Your task to perform on an android device: Open Maps and search for coffee Image 0: 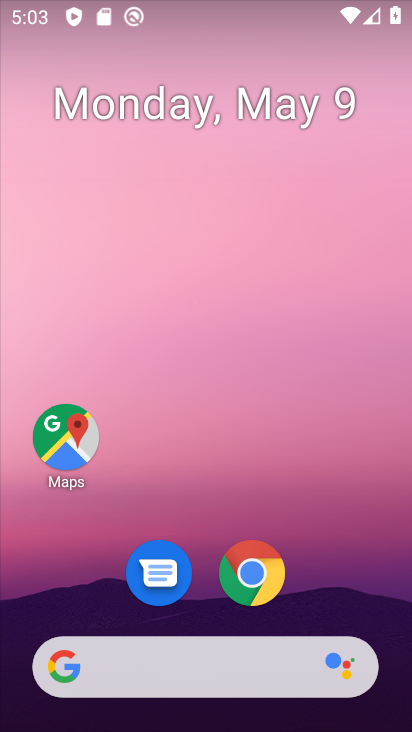
Step 0: drag from (351, 606) to (325, 200)
Your task to perform on an android device: Open Maps and search for coffee Image 1: 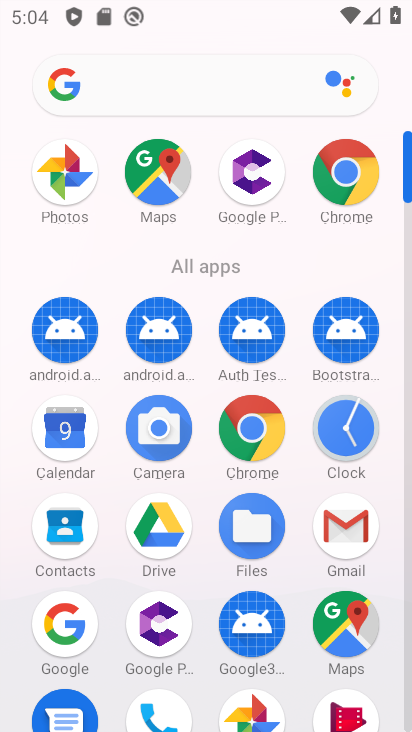
Step 1: drag from (293, 646) to (298, 191)
Your task to perform on an android device: Open Maps and search for coffee Image 2: 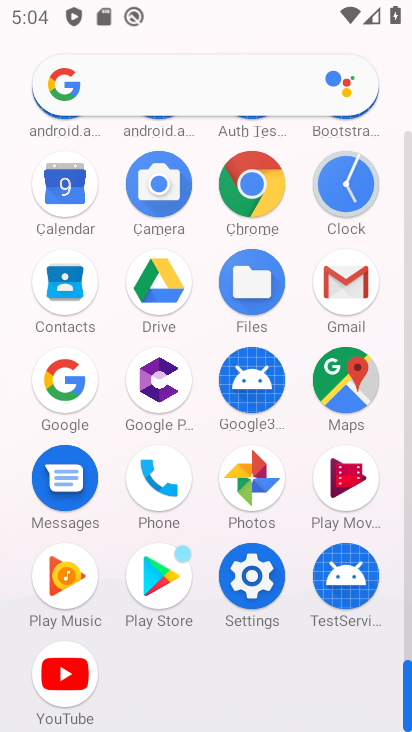
Step 2: drag from (308, 270) to (262, 579)
Your task to perform on an android device: Open Maps and search for coffee Image 3: 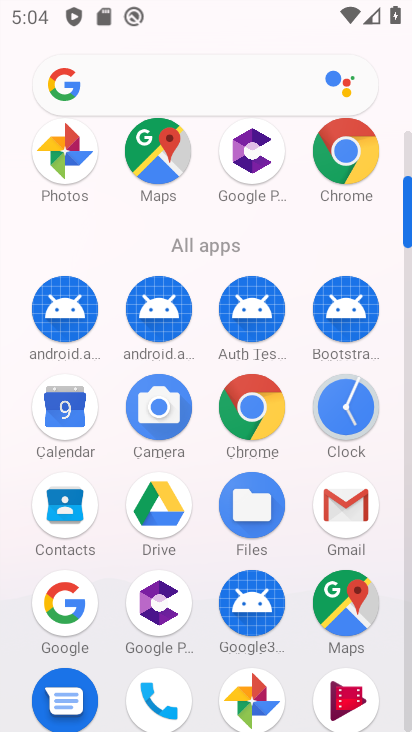
Step 3: click (163, 194)
Your task to perform on an android device: Open Maps and search for coffee Image 4: 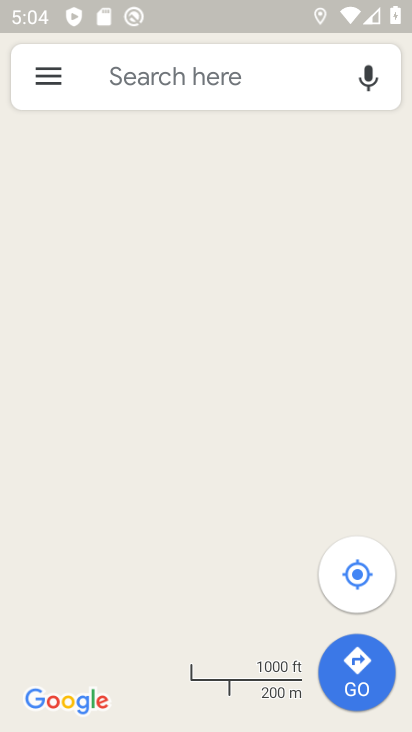
Step 4: click (226, 77)
Your task to perform on an android device: Open Maps and search for coffee Image 5: 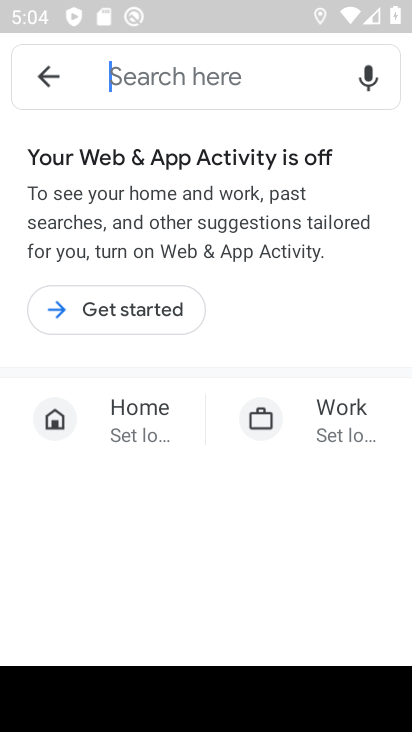
Step 5: click (209, 78)
Your task to perform on an android device: Open Maps and search for coffee Image 6: 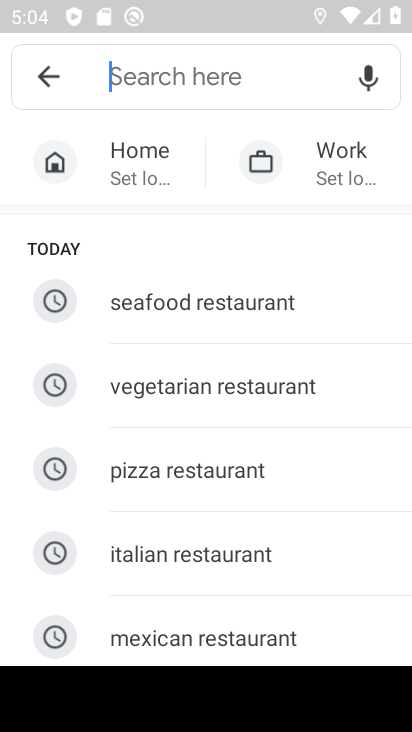
Step 6: drag from (353, 538) to (346, 179)
Your task to perform on an android device: Open Maps and search for coffee Image 7: 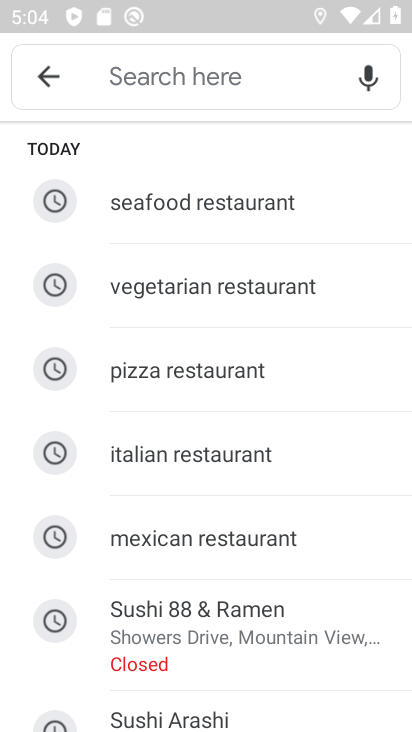
Step 7: drag from (209, 556) to (202, 278)
Your task to perform on an android device: Open Maps and search for coffee Image 8: 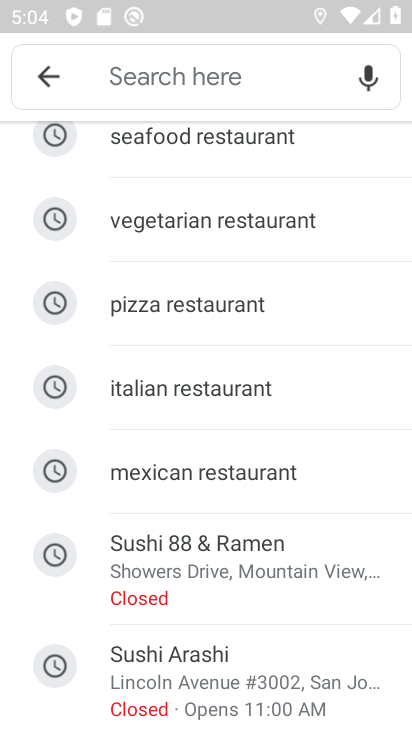
Step 8: click (165, 64)
Your task to perform on an android device: Open Maps and search for coffee Image 9: 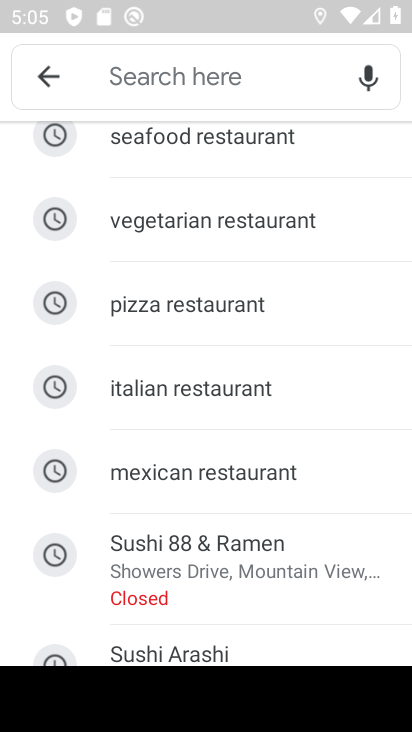
Step 9: type "coffee"
Your task to perform on an android device: Open Maps and search for coffee Image 10: 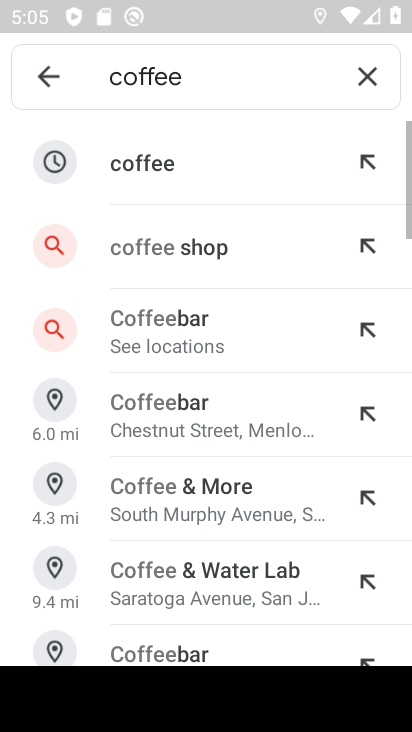
Step 10: click (215, 184)
Your task to perform on an android device: Open Maps and search for coffee Image 11: 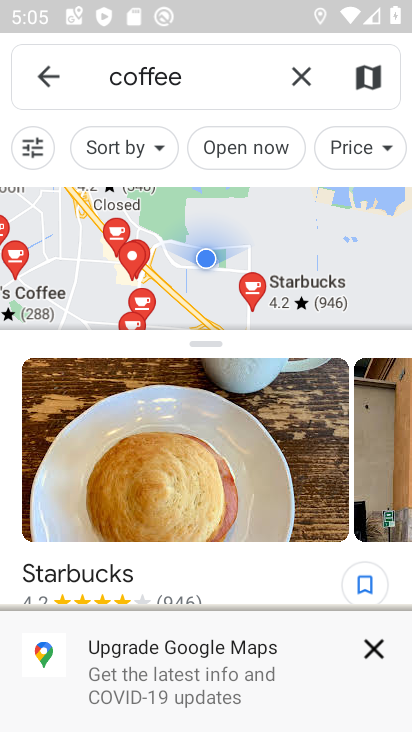
Step 11: task complete